Your task to perform on an android device: Search for Mexican restaurants on Maps Image 0: 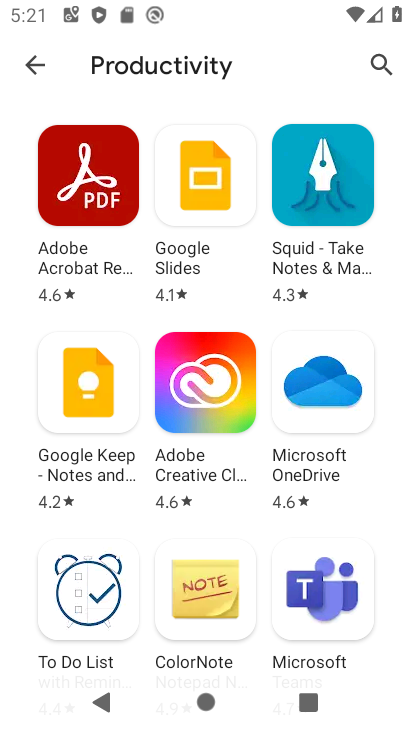
Step 0: press home button
Your task to perform on an android device: Search for Mexican restaurants on Maps Image 1: 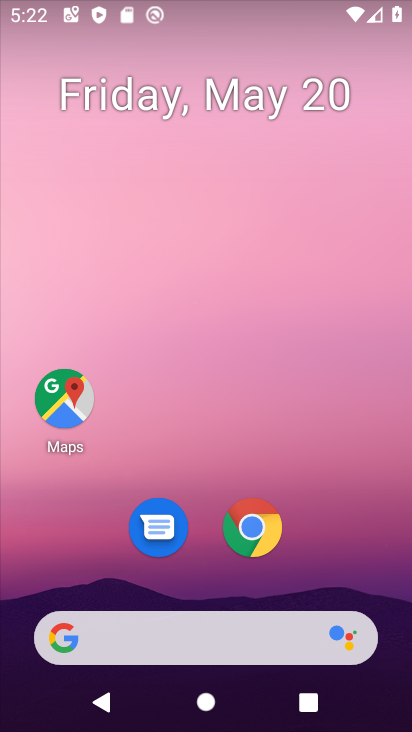
Step 1: drag from (196, 655) to (271, 2)
Your task to perform on an android device: Search for Mexican restaurants on Maps Image 2: 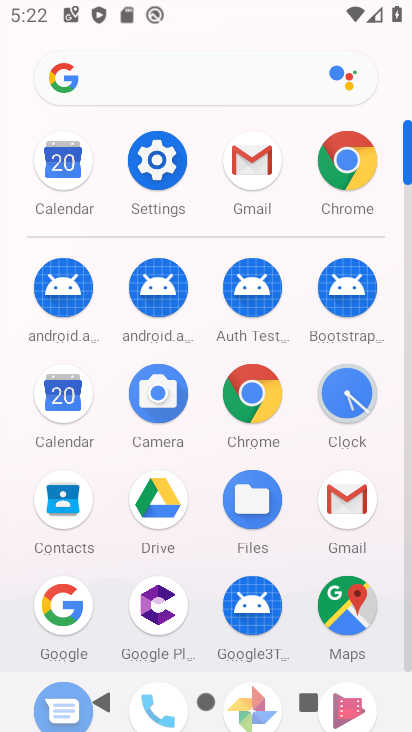
Step 2: click (354, 579)
Your task to perform on an android device: Search for Mexican restaurants on Maps Image 3: 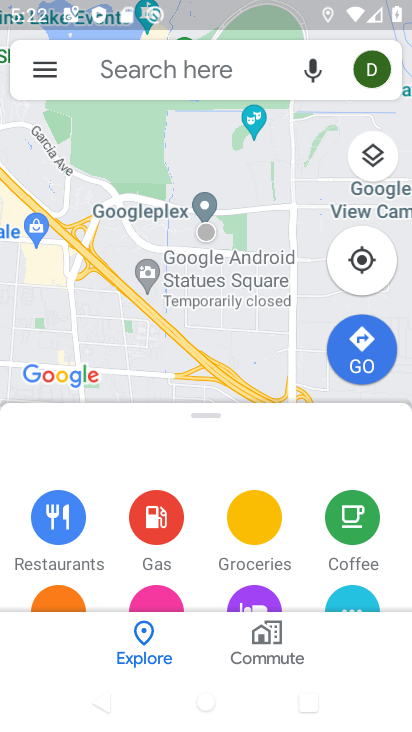
Step 3: click (235, 83)
Your task to perform on an android device: Search for Mexican restaurants on Maps Image 4: 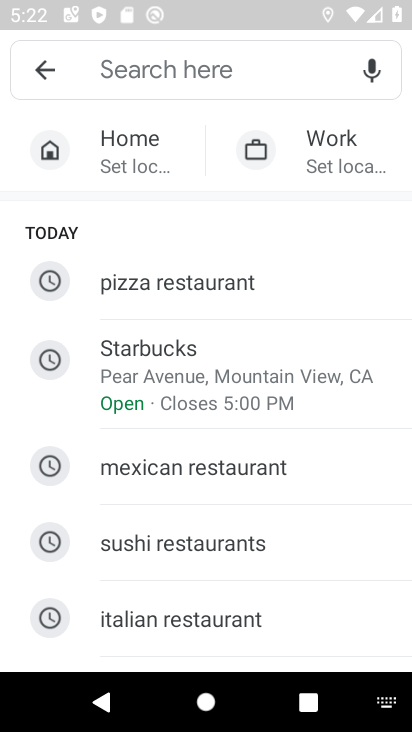
Step 4: click (263, 466)
Your task to perform on an android device: Search for Mexican restaurants on Maps Image 5: 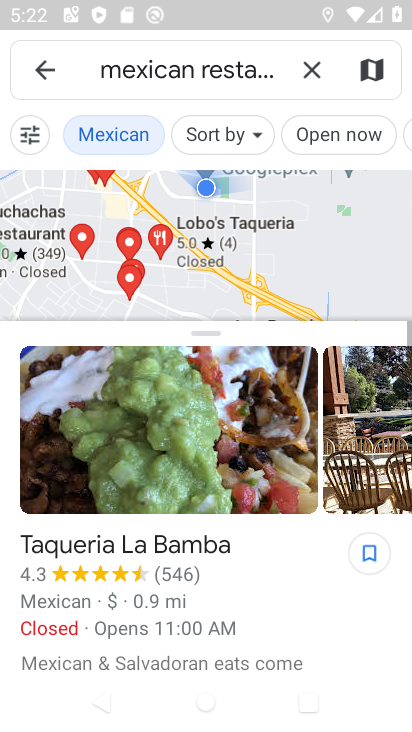
Step 5: task complete